Your task to perform on an android device: see sites visited before in the chrome app Image 0: 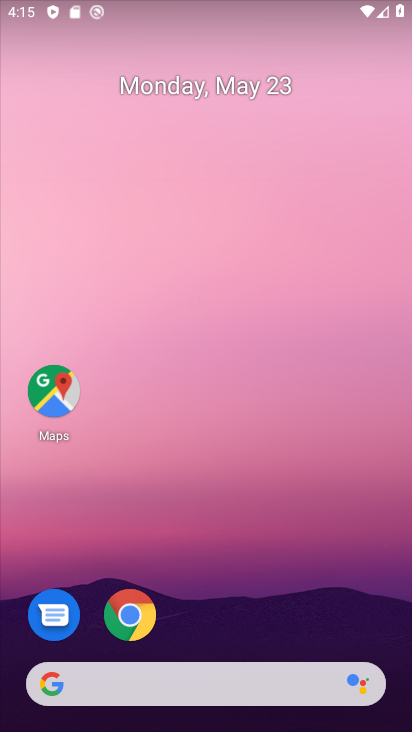
Step 0: click (135, 609)
Your task to perform on an android device: see sites visited before in the chrome app Image 1: 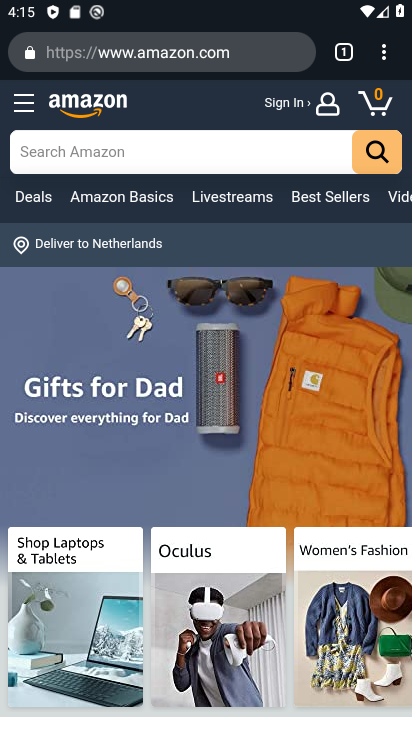
Step 1: click (385, 55)
Your task to perform on an android device: see sites visited before in the chrome app Image 2: 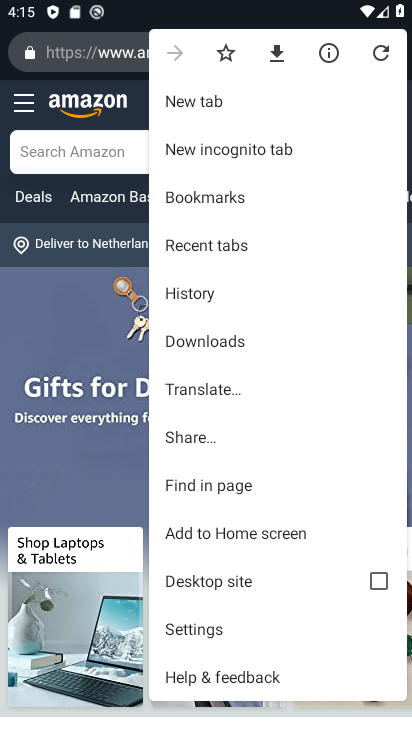
Step 2: click (217, 245)
Your task to perform on an android device: see sites visited before in the chrome app Image 3: 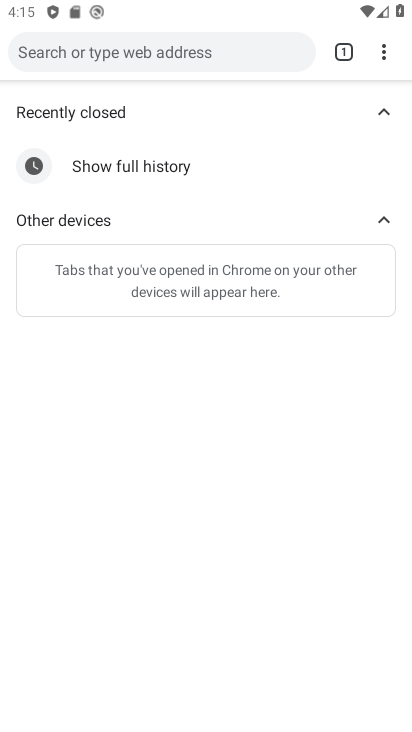
Step 3: task complete